Your task to perform on an android device: read, delete, or share a saved page in the chrome app Image 0: 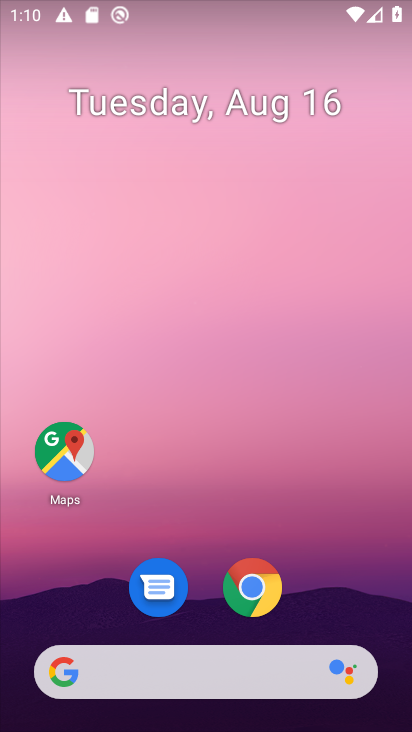
Step 0: click (259, 592)
Your task to perform on an android device: read, delete, or share a saved page in the chrome app Image 1: 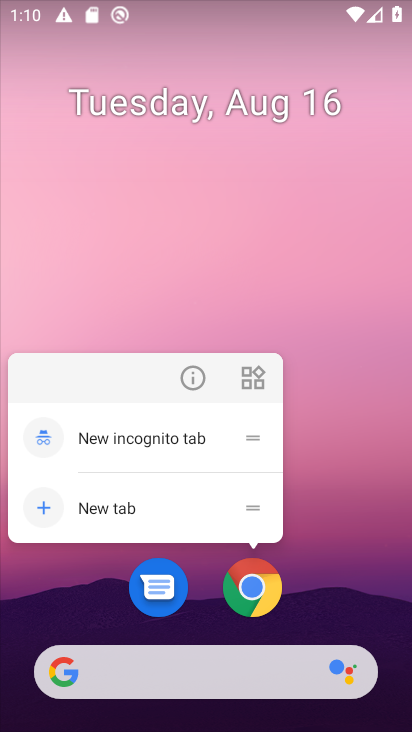
Step 1: click (259, 592)
Your task to perform on an android device: read, delete, or share a saved page in the chrome app Image 2: 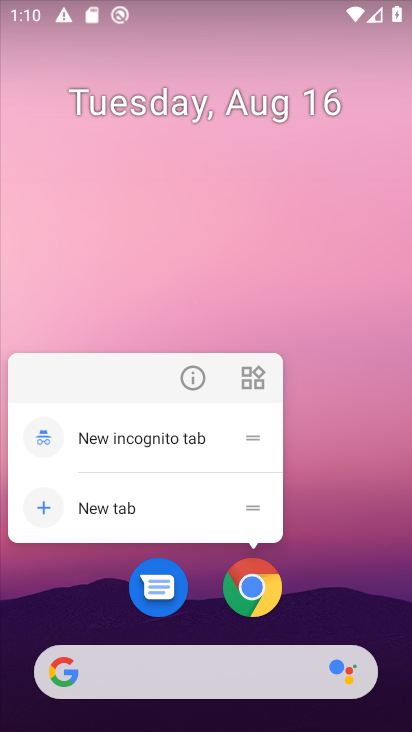
Step 2: click (254, 588)
Your task to perform on an android device: read, delete, or share a saved page in the chrome app Image 3: 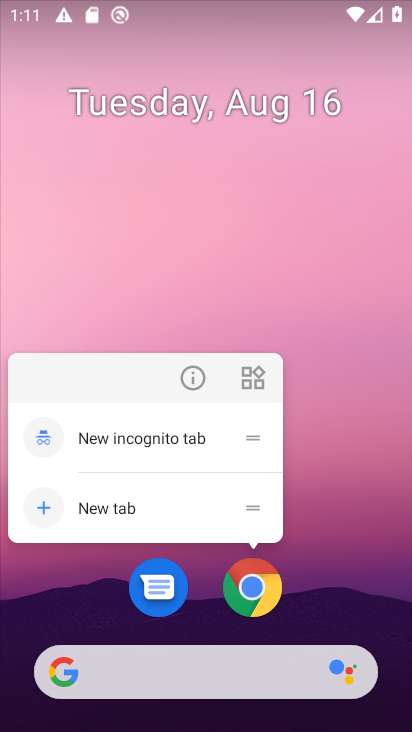
Step 3: click (254, 588)
Your task to perform on an android device: read, delete, or share a saved page in the chrome app Image 4: 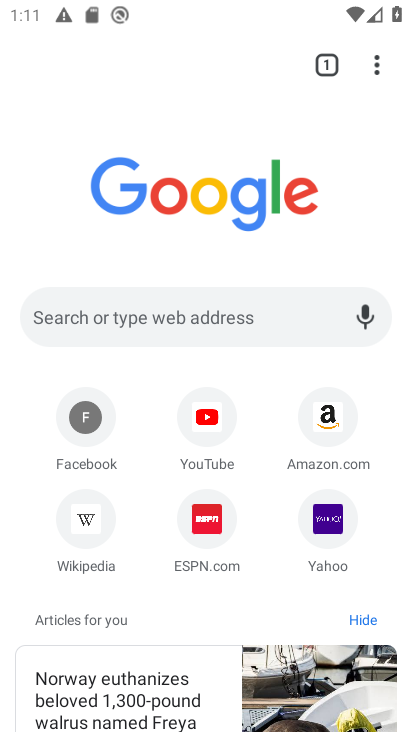
Step 4: click (375, 65)
Your task to perform on an android device: read, delete, or share a saved page in the chrome app Image 5: 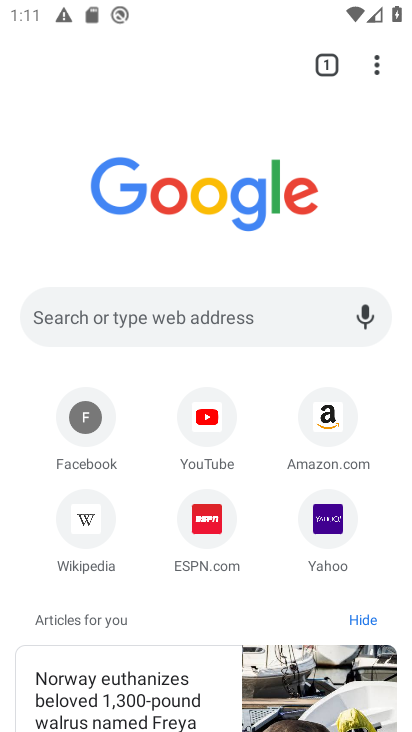
Step 5: click (374, 66)
Your task to perform on an android device: read, delete, or share a saved page in the chrome app Image 6: 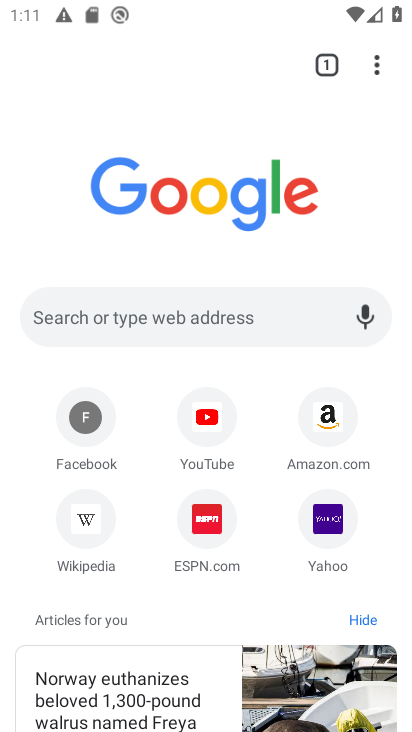
Step 6: click (375, 65)
Your task to perform on an android device: read, delete, or share a saved page in the chrome app Image 7: 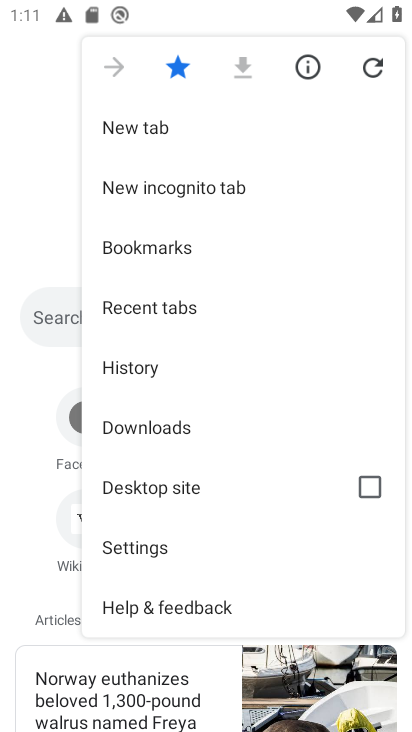
Step 7: click (156, 430)
Your task to perform on an android device: read, delete, or share a saved page in the chrome app Image 8: 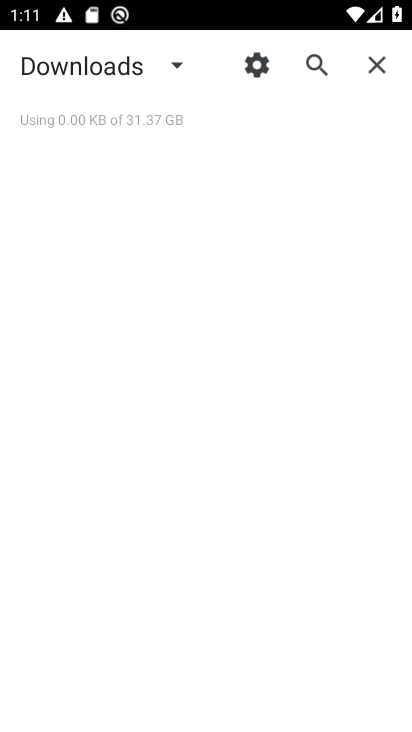
Step 8: click (176, 68)
Your task to perform on an android device: read, delete, or share a saved page in the chrome app Image 9: 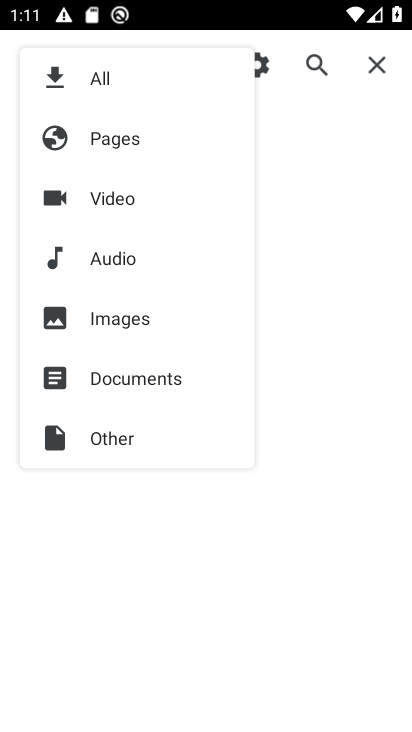
Step 9: click (125, 141)
Your task to perform on an android device: read, delete, or share a saved page in the chrome app Image 10: 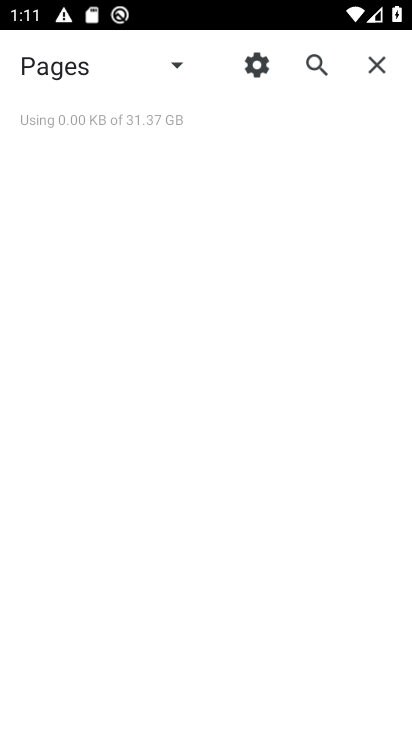
Step 10: task complete